Your task to perform on an android device: Open my contact list Image 0: 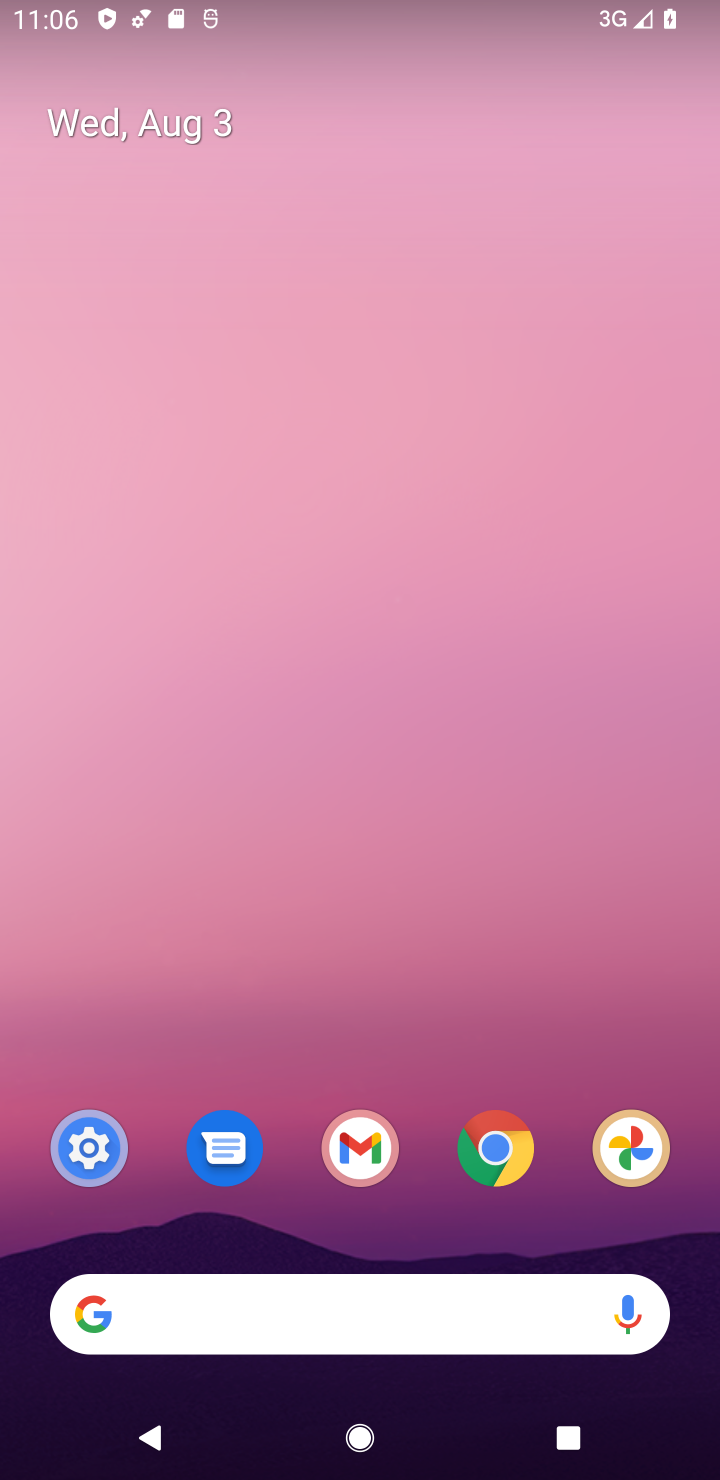
Step 0: drag from (369, 904) to (503, 259)
Your task to perform on an android device: Open my contact list Image 1: 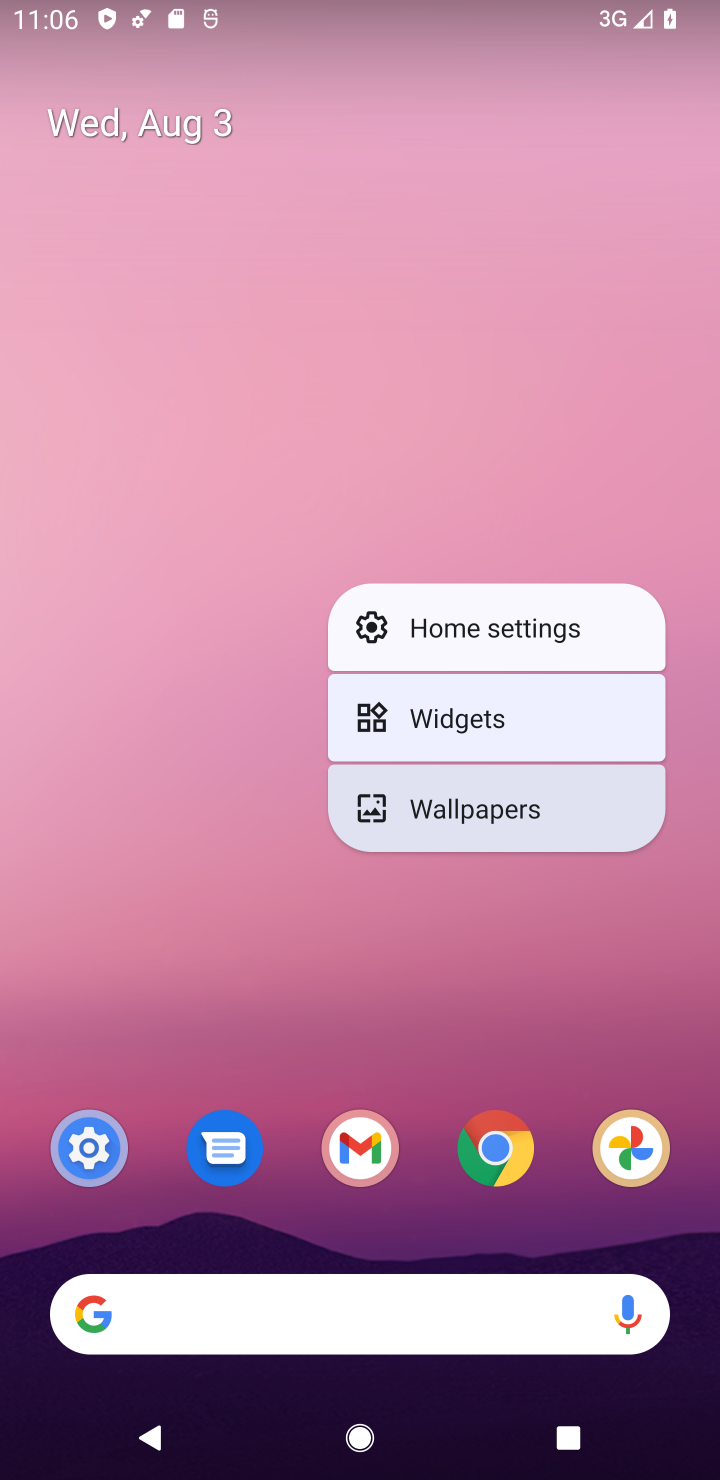
Step 1: click (279, 888)
Your task to perform on an android device: Open my contact list Image 2: 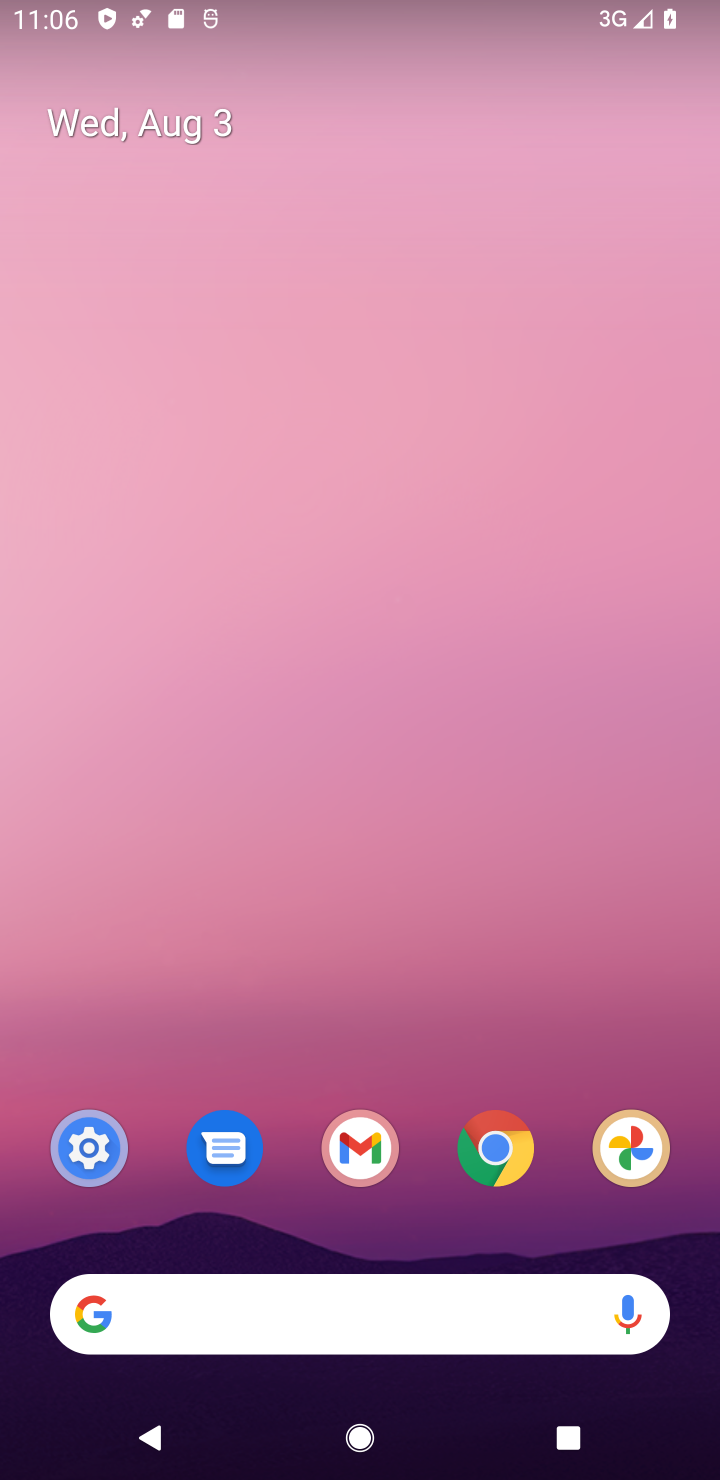
Step 2: drag from (376, 829) to (486, 199)
Your task to perform on an android device: Open my contact list Image 3: 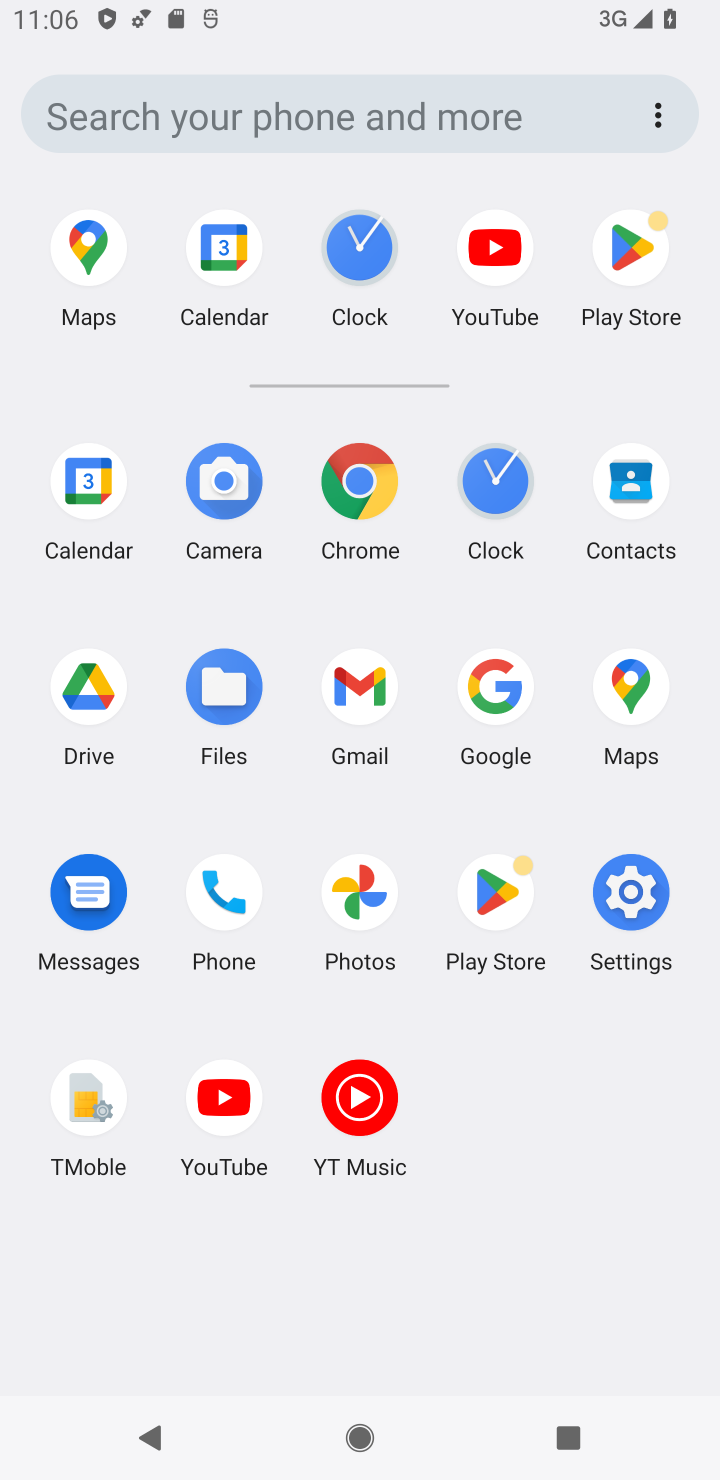
Step 3: click (628, 493)
Your task to perform on an android device: Open my contact list Image 4: 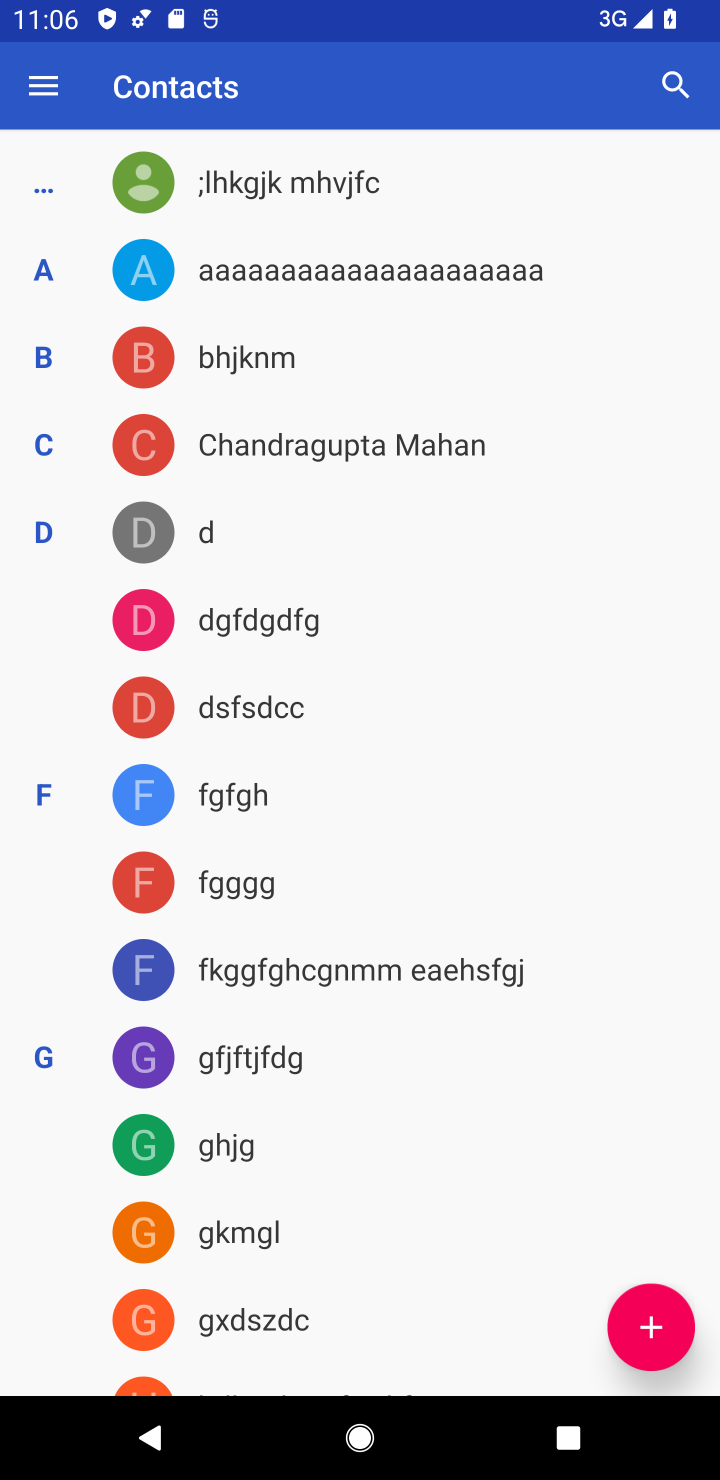
Step 4: task complete